Your task to perform on an android device: Go to calendar. Show me events next week Image 0: 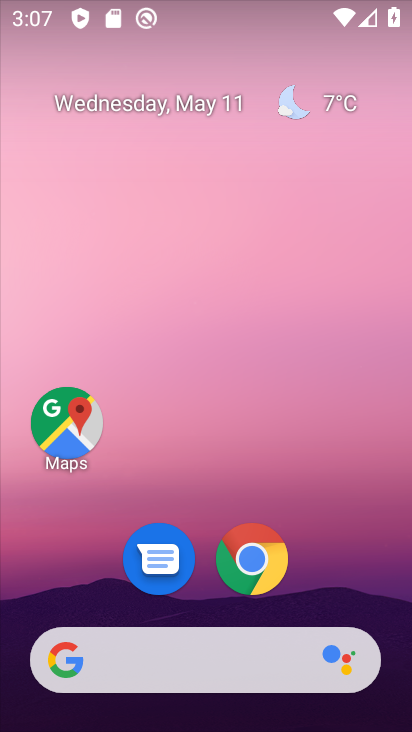
Step 0: drag from (179, 627) to (169, 223)
Your task to perform on an android device: Go to calendar. Show me events next week Image 1: 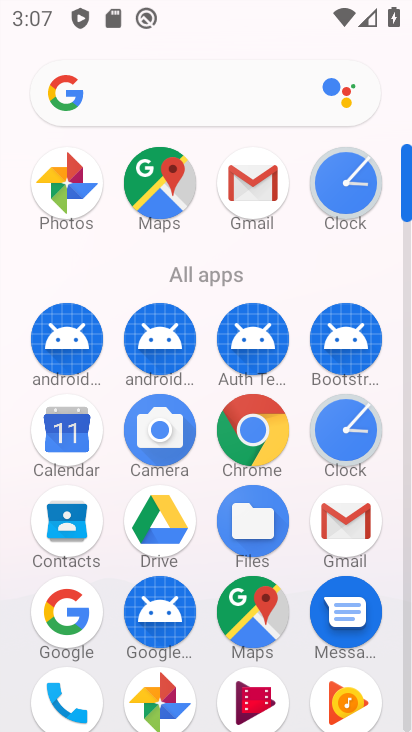
Step 1: click (65, 447)
Your task to perform on an android device: Go to calendar. Show me events next week Image 2: 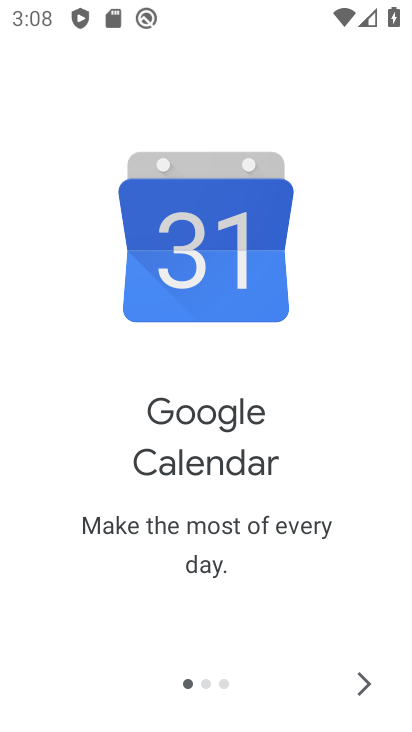
Step 2: click (358, 698)
Your task to perform on an android device: Go to calendar. Show me events next week Image 3: 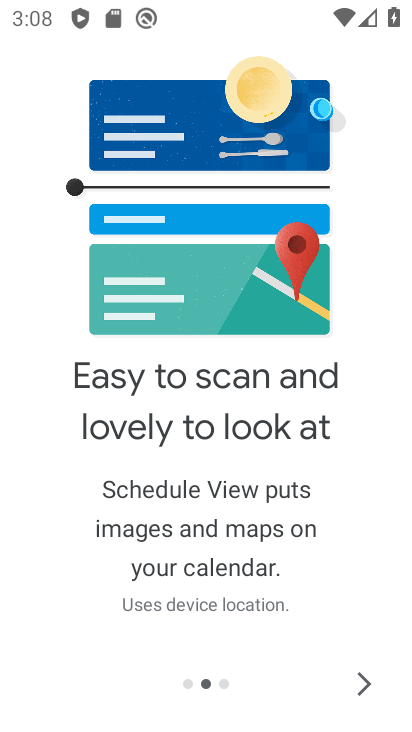
Step 3: click (358, 698)
Your task to perform on an android device: Go to calendar. Show me events next week Image 4: 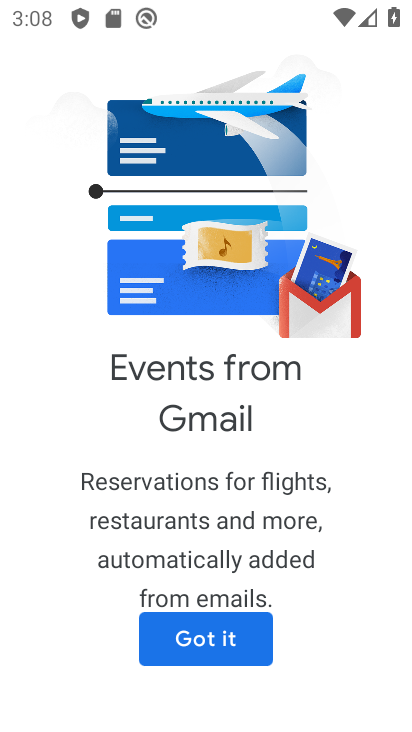
Step 4: click (248, 635)
Your task to perform on an android device: Go to calendar. Show me events next week Image 5: 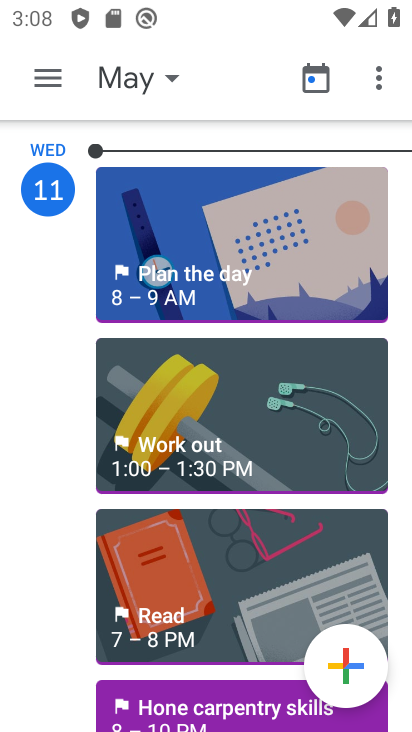
Step 5: click (147, 86)
Your task to perform on an android device: Go to calendar. Show me events next week Image 6: 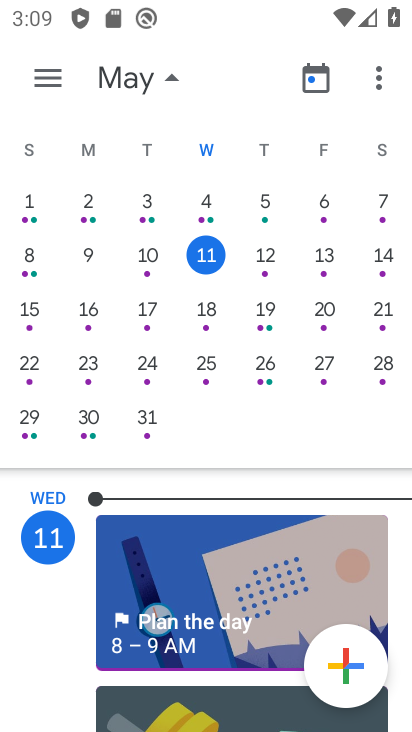
Step 6: click (265, 313)
Your task to perform on an android device: Go to calendar. Show me events next week Image 7: 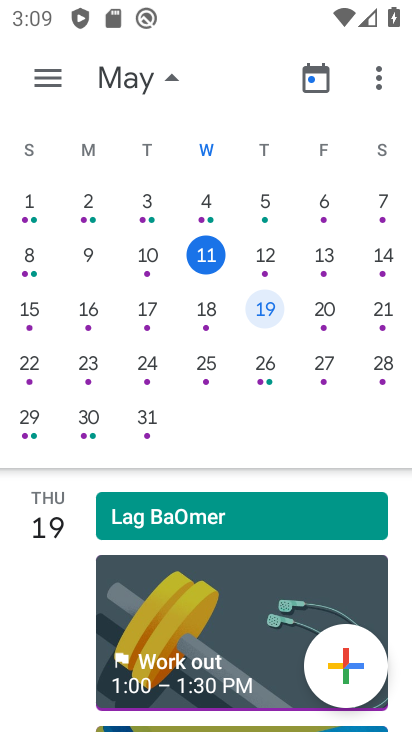
Step 7: task complete